Your task to perform on an android device: What's the weather going to be this weekend? Image 0: 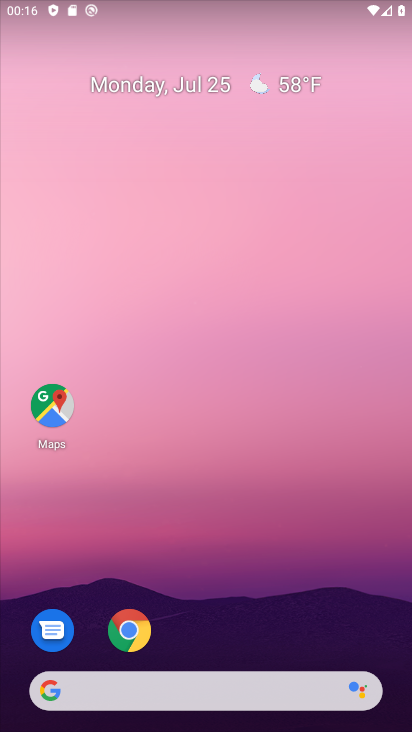
Step 0: drag from (227, 607) to (24, 190)
Your task to perform on an android device: What's the weather going to be this weekend? Image 1: 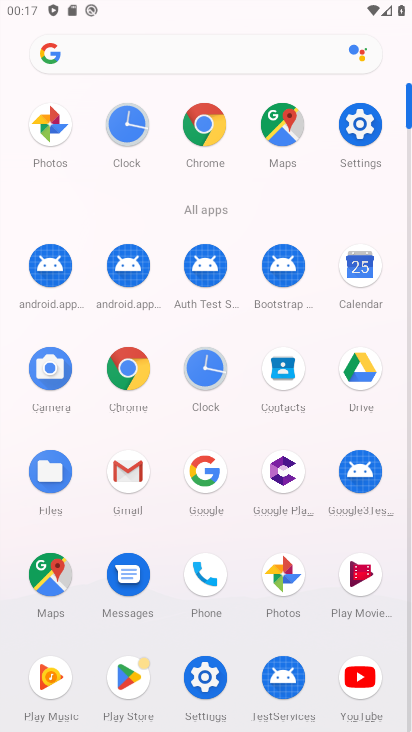
Step 1: click (196, 465)
Your task to perform on an android device: What's the weather going to be this weekend? Image 2: 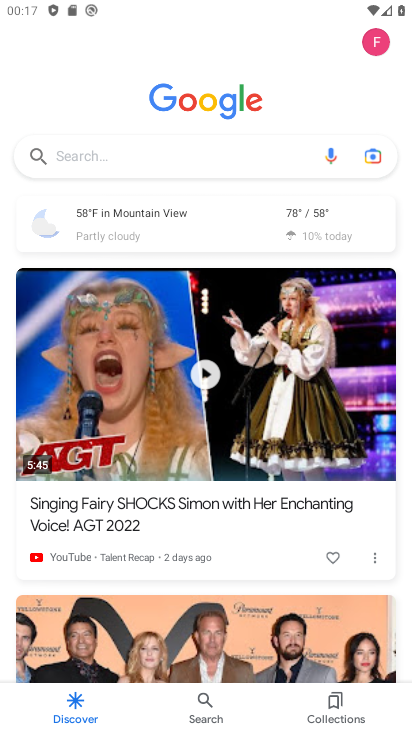
Step 2: click (223, 250)
Your task to perform on an android device: What's the weather going to be this weekend? Image 3: 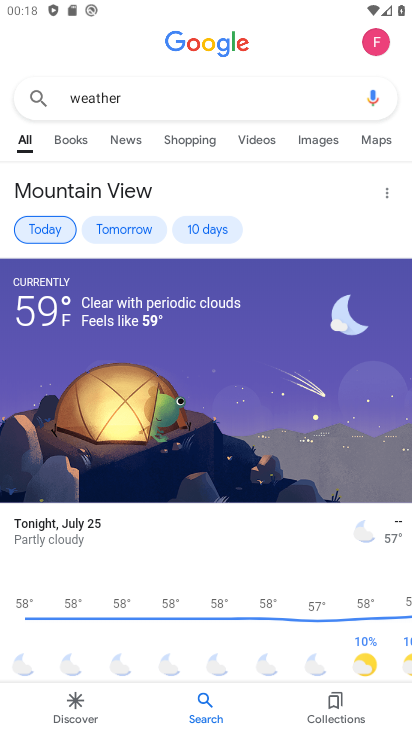
Step 3: task complete